Your task to perform on an android device: Open Chrome and go to settings Image 0: 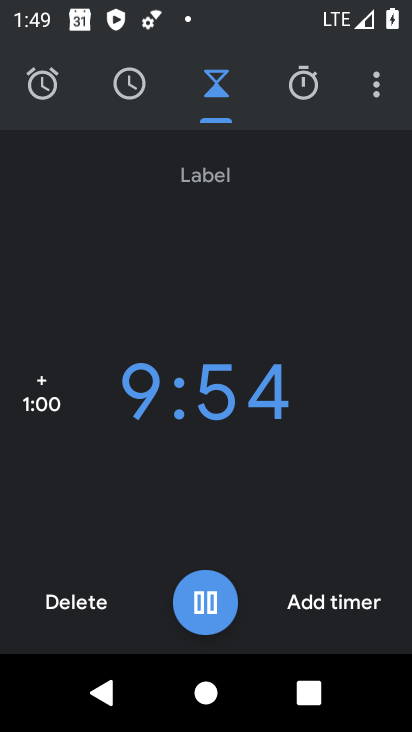
Step 0: press back button
Your task to perform on an android device: Open Chrome and go to settings Image 1: 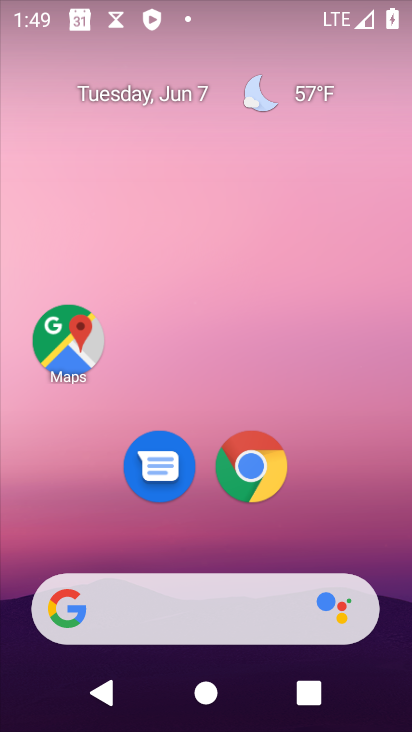
Step 1: click (253, 458)
Your task to perform on an android device: Open Chrome and go to settings Image 2: 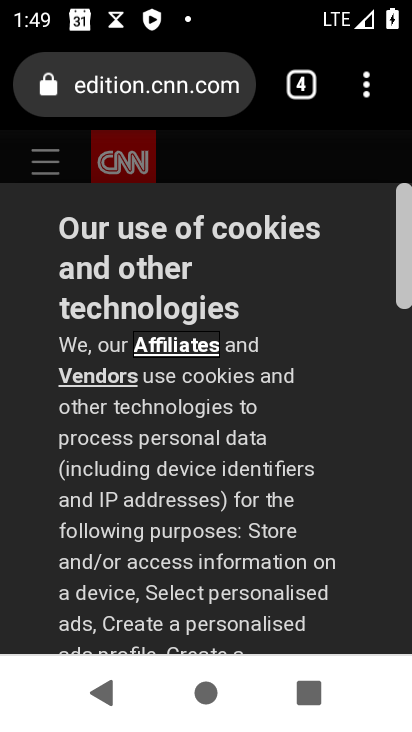
Step 2: task complete